Your task to perform on an android device: Play the last video I watched on Youtube Image 0: 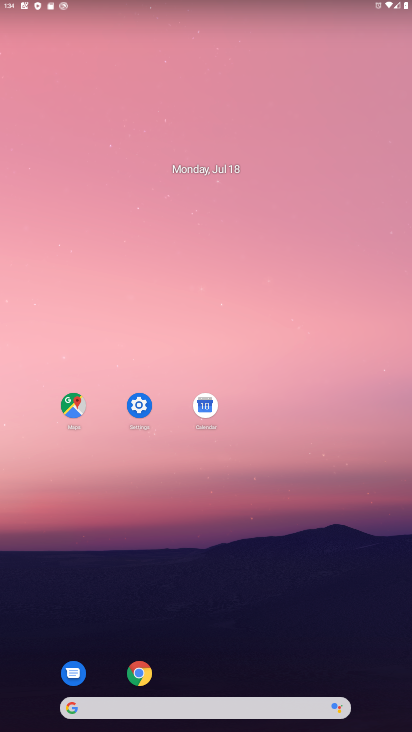
Step 0: drag from (409, 717) to (360, 125)
Your task to perform on an android device: Play the last video I watched on Youtube Image 1: 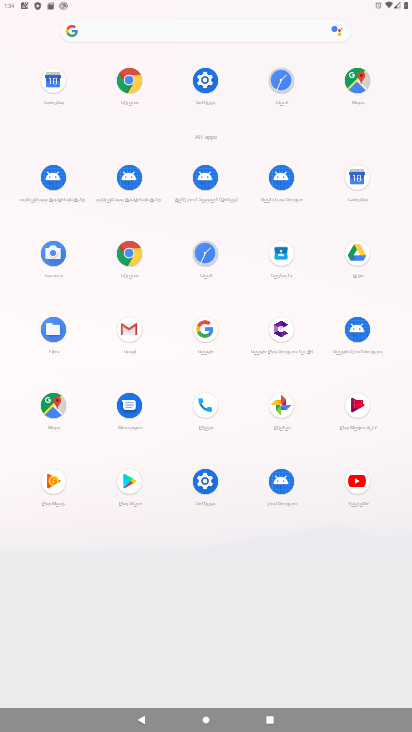
Step 1: click (355, 484)
Your task to perform on an android device: Play the last video I watched on Youtube Image 2: 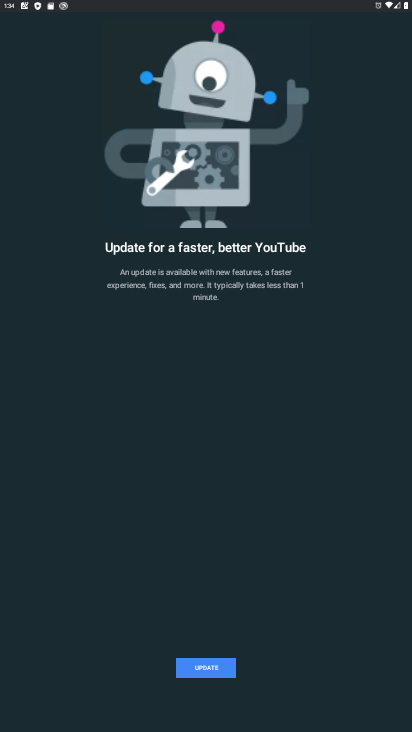
Step 2: click (219, 668)
Your task to perform on an android device: Play the last video I watched on Youtube Image 3: 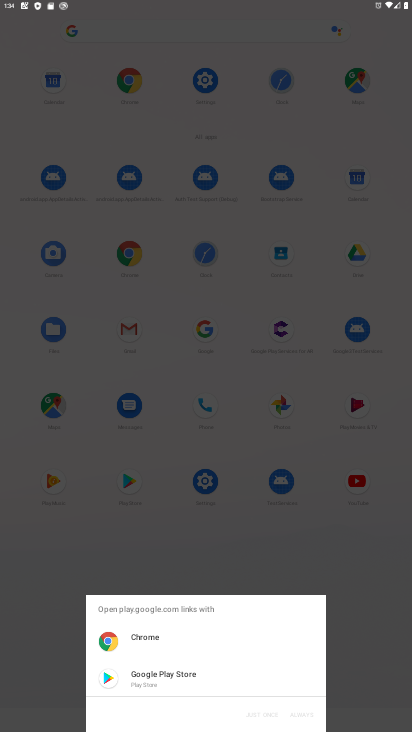
Step 3: click (167, 673)
Your task to perform on an android device: Play the last video I watched on Youtube Image 4: 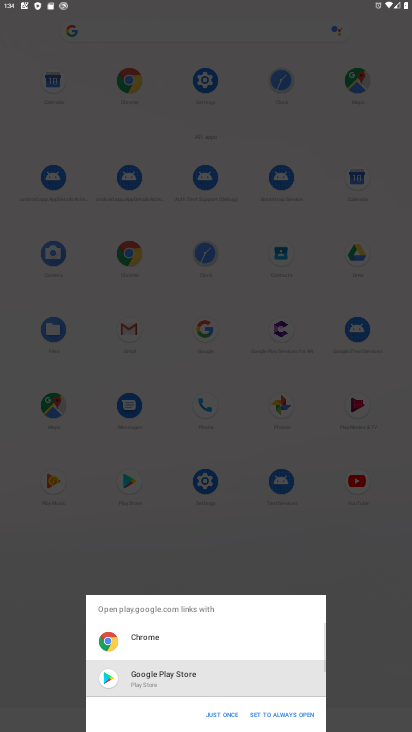
Step 4: click (219, 712)
Your task to perform on an android device: Play the last video I watched on Youtube Image 5: 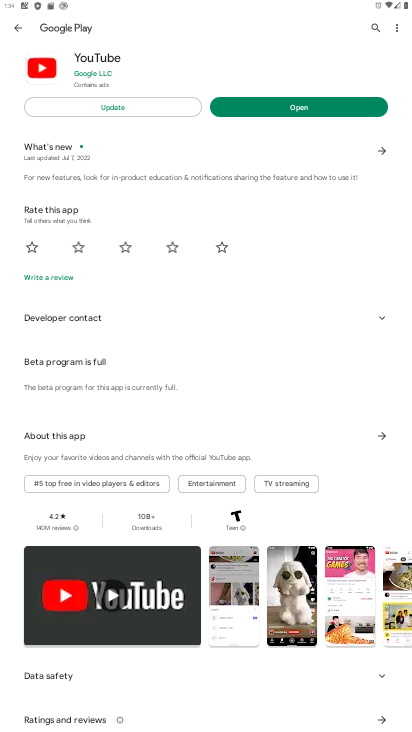
Step 5: click (162, 108)
Your task to perform on an android device: Play the last video I watched on Youtube Image 6: 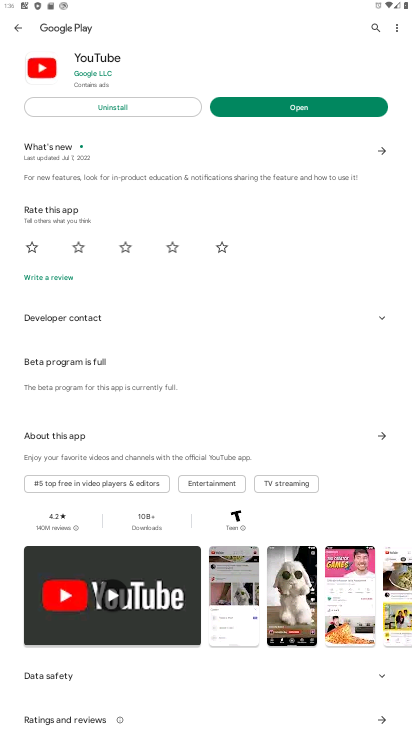
Step 6: click (324, 108)
Your task to perform on an android device: Play the last video I watched on Youtube Image 7: 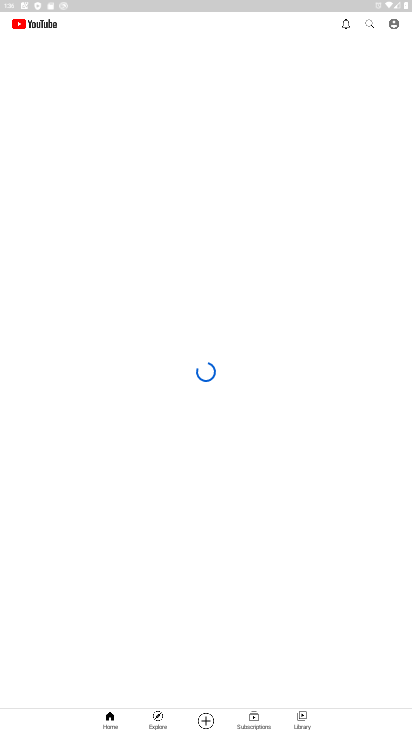
Step 7: click (293, 718)
Your task to perform on an android device: Play the last video I watched on Youtube Image 8: 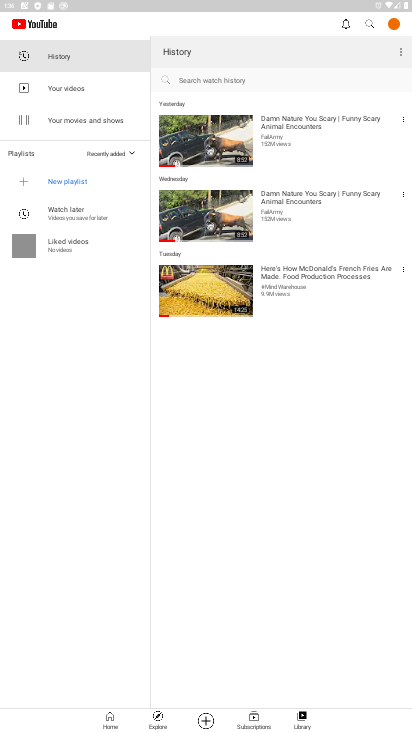
Step 8: click (195, 132)
Your task to perform on an android device: Play the last video I watched on Youtube Image 9: 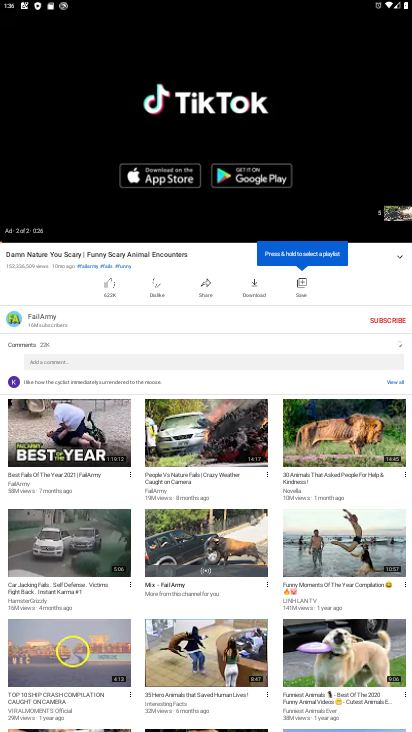
Step 9: task complete